Your task to perform on an android device: find snoozed emails in the gmail app Image 0: 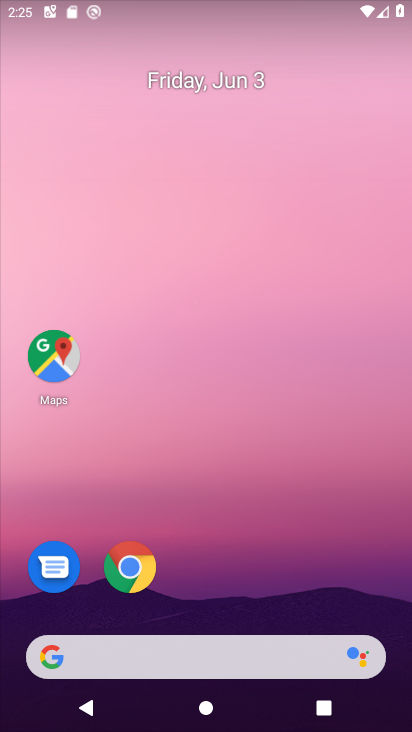
Step 0: drag from (211, 619) to (263, 150)
Your task to perform on an android device: find snoozed emails in the gmail app Image 1: 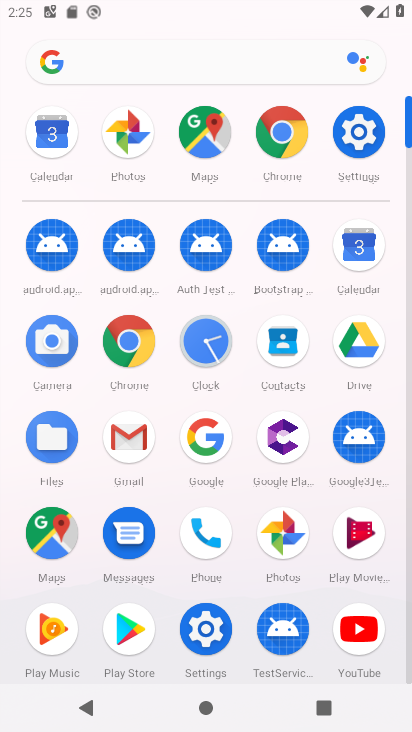
Step 1: click (122, 440)
Your task to perform on an android device: find snoozed emails in the gmail app Image 2: 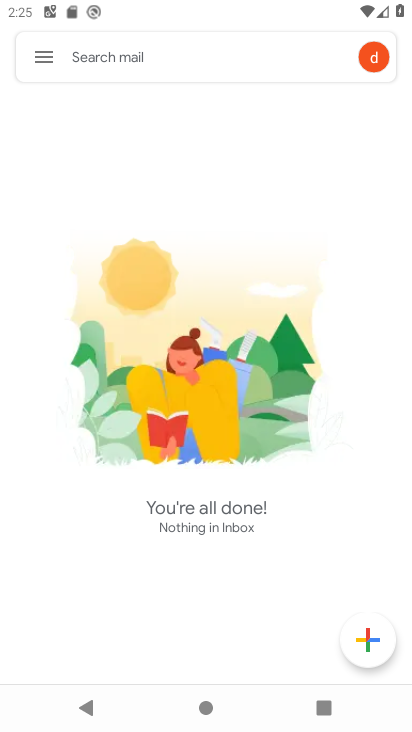
Step 2: click (33, 56)
Your task to perform on an android device: find snoozed emails in the gmail app Image 3: 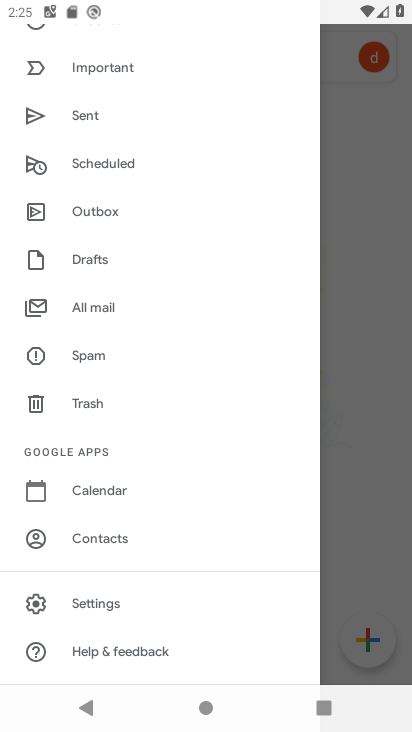
Step 3: drag from (124, 129) to (93, 484)
Your task to perform on an android device: find snoozed emails in the gmail app Image 4: 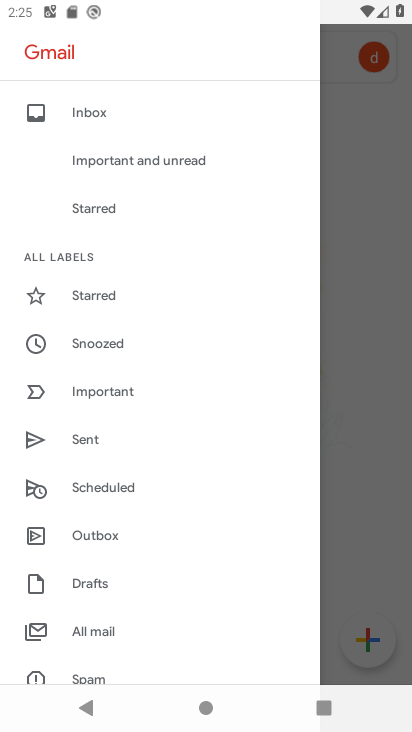
Step 4: click (100, 346)
Your task to perform on an android device: find snoozed emails in the gmail app Image 5: 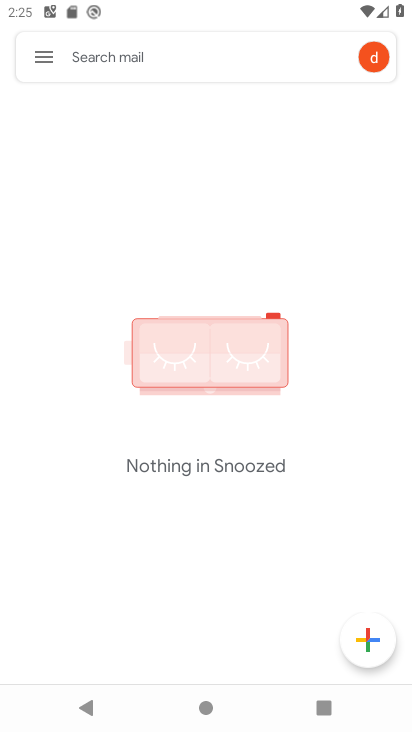
Step 5: task complete